Your task to perform on an android device: Open the calendar and show me this week's events? Image 0: 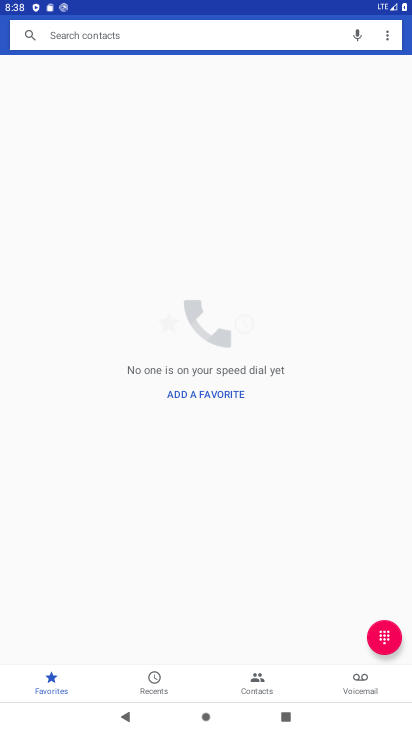
Step 0: press home button
Your task to perform on an android device: Open the calendar and show me this week's events? Image 1: 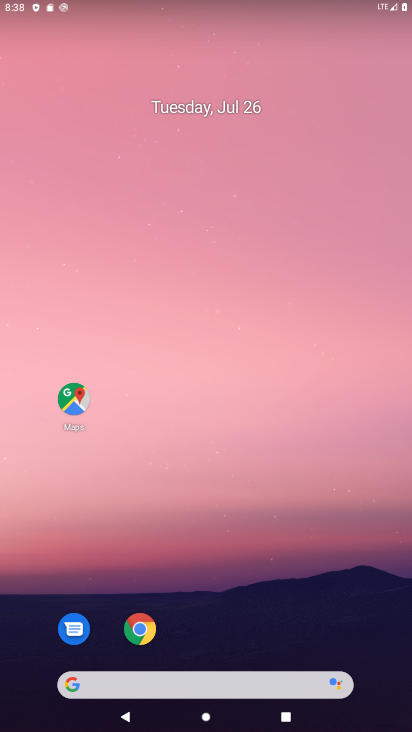
Step 1: drag from (182, 648) to (121, 128)
Your task to perform on an android device: Open the calendar and show me this week's events? Image 2: 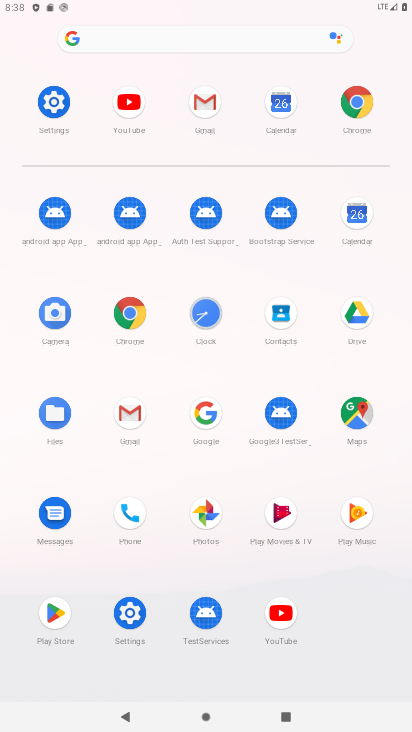
Step 2: click (366, 217)
Your task to perform on an android device: Open the calendar and show me this week's events? Image 3: 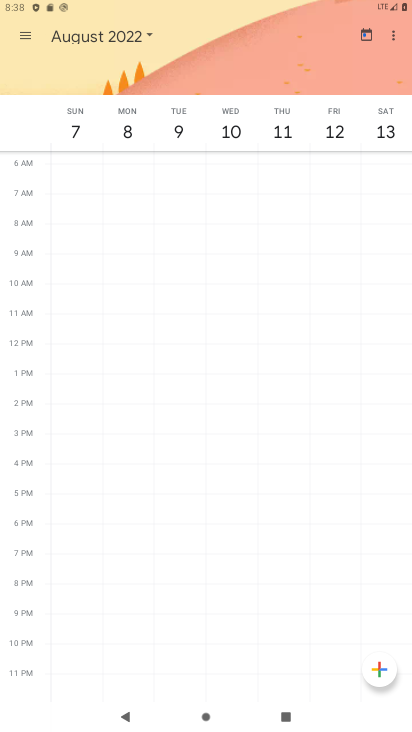
Step 3: click (366, 37)
Your task to perform on an android device: Open the calendar and show me this week's events? Image 4: 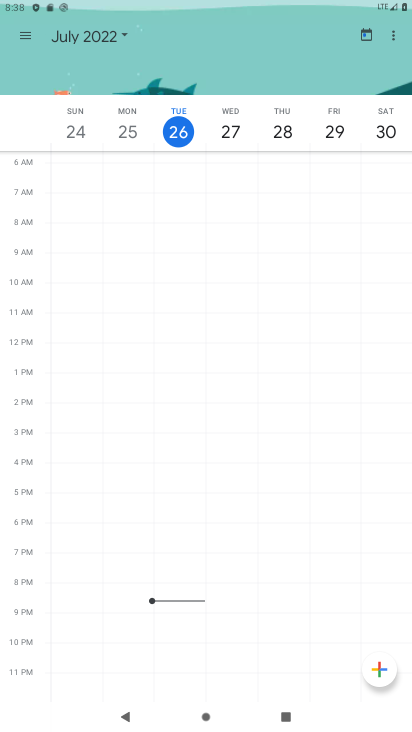
Step 4: task complete